Your task to perform on an android device: open a bookmark in the chrome app Image 0: 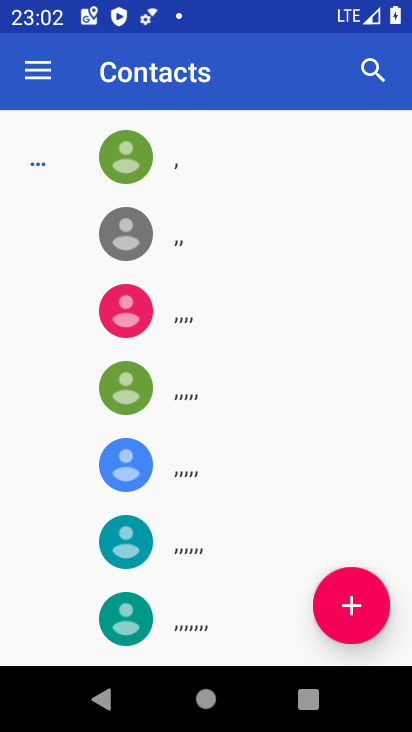
Step 0: press home button
Your task to perform on an android device: open a bookmark in the chrome app Image 1: 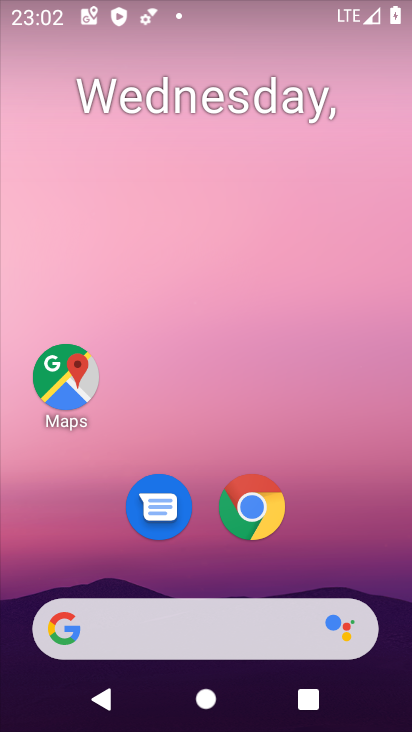
Step 1: drag from (322, 302) to (319, 207)
Your task to perform on an android device: open a bookmark in the chrome app Image 2: 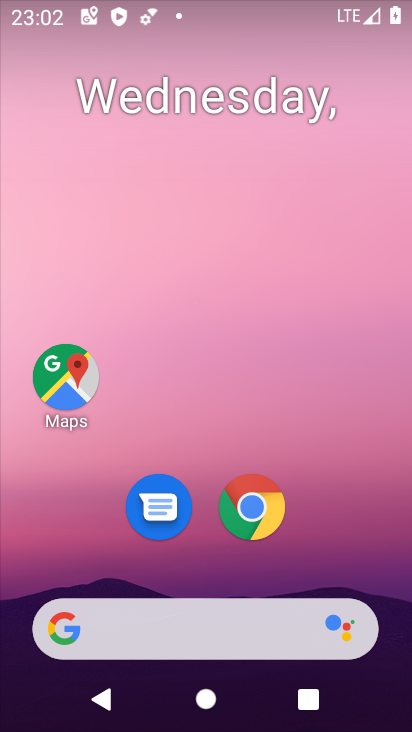
Step 2: drag from (326, 569) to (312, 222)
Your task to perform on an android device: open a bookmark in the chrome app Image 3: 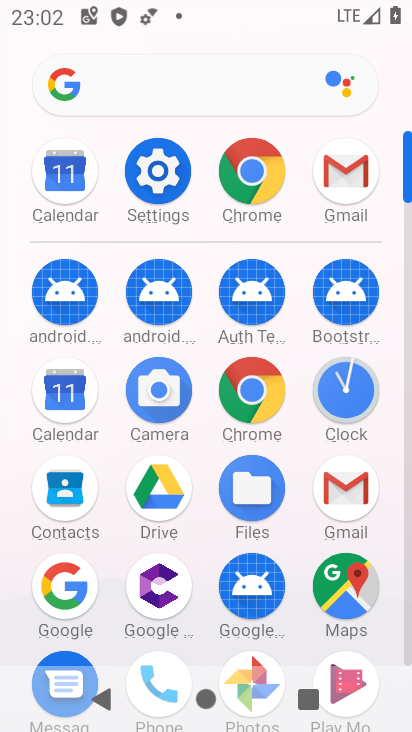
Step 3: click (241, 182)
Your task to perform on an android device: open a bookmark in the chrome app Image 4: 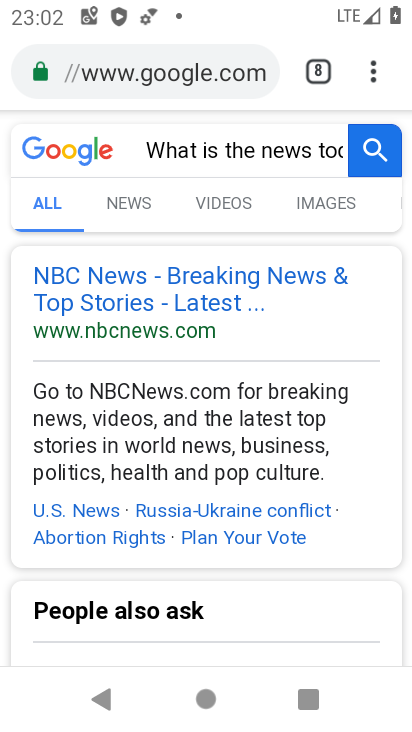
Step 4: click (362, 66)
Your task to perform on an android device: open a bookmark in the chrome app Image 5: 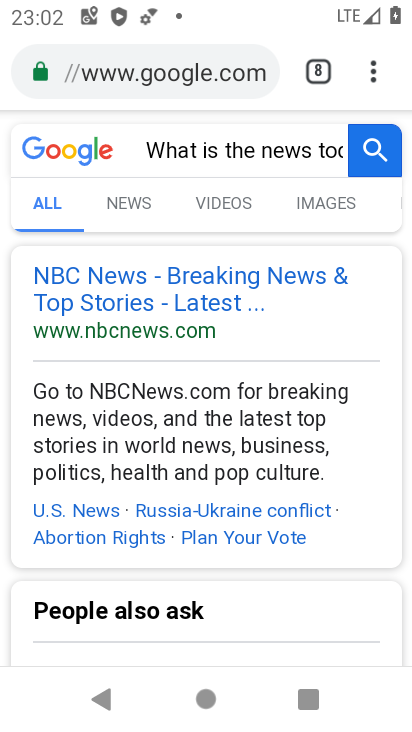
Step 5: click (362, 71)
Your task to perform on an android device: open a bookmark in the chrome app Image 6: 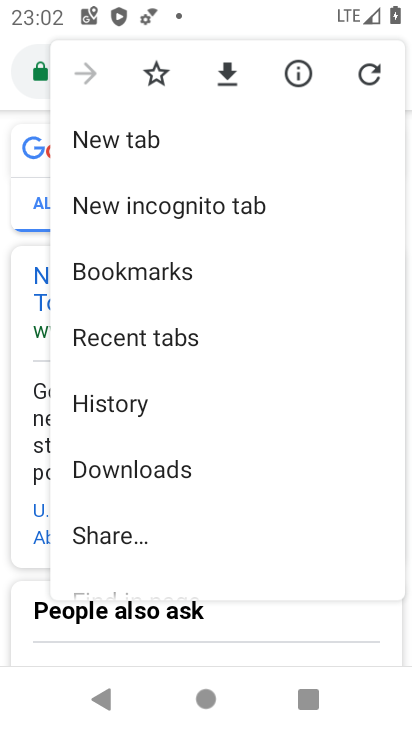
Step 6: click (184, 272)
Your task to perform on an android device: open a bookmark in the chrome app Image 7: 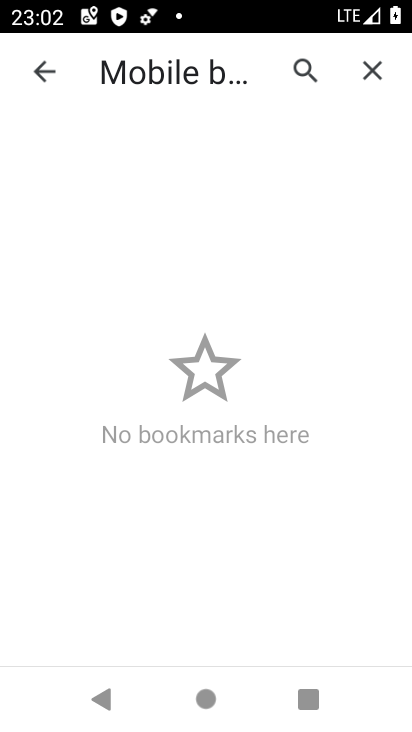
Step 7: task complete